Your task to perform on an android device: check data usage Image 0: 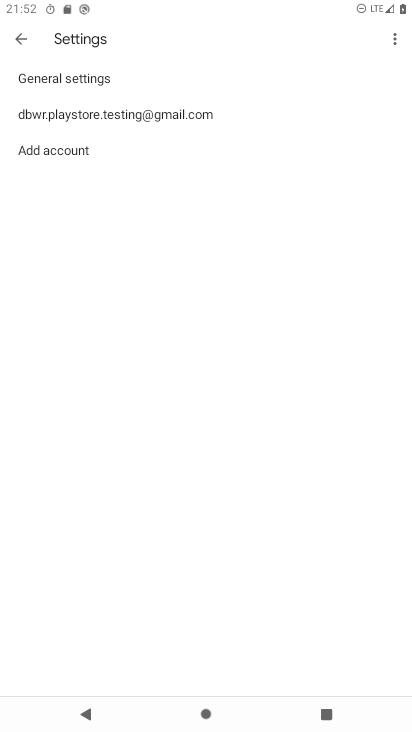
Step 0: press home button
Your task to perform on an android device: check data usage Image 1: 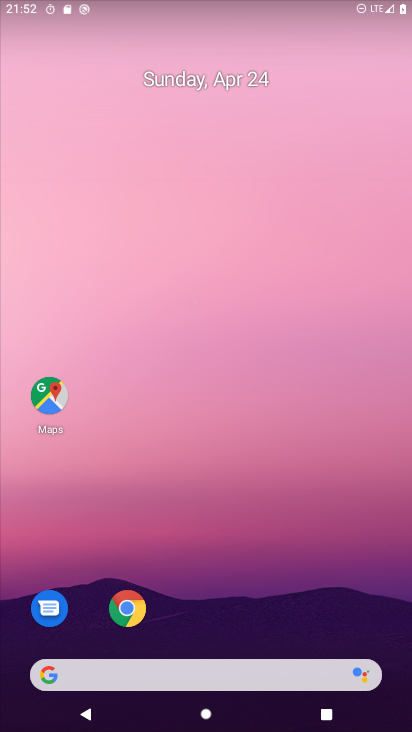
Step 1: drag from (303, 527) to (281, 55)
Your task to perform on an android device: check data usage Image 2: 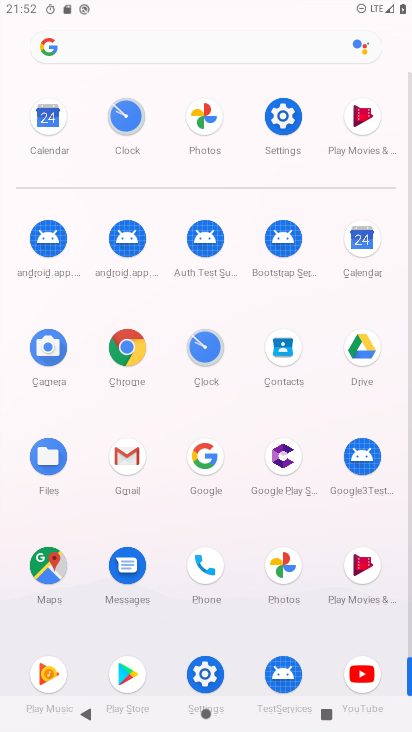
Step 2: click (278, 111)
Your task to perform on an android device: check data usage Image 3: 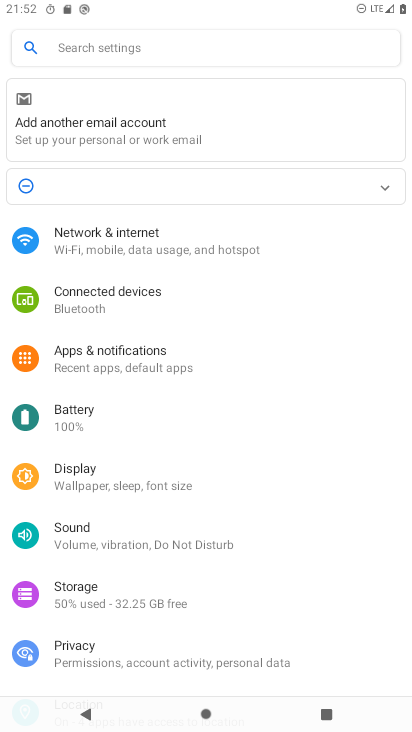
Step 3: click (238, 237)
Your task to perform on an android device: check data usage Image 4: 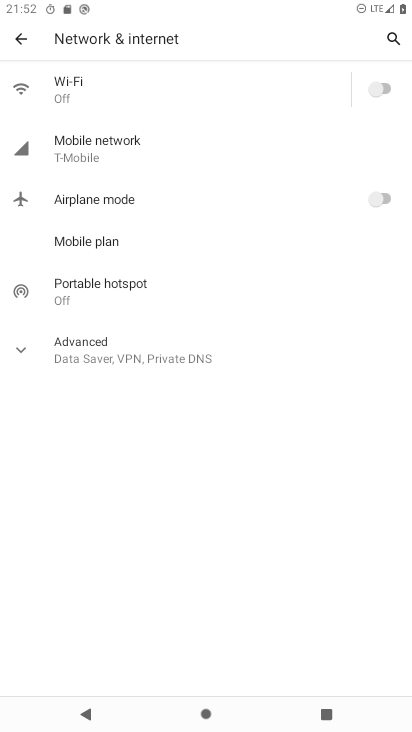
Step 4: click (223, 151)
Your task to perform on an android device: check data usage Image 5: 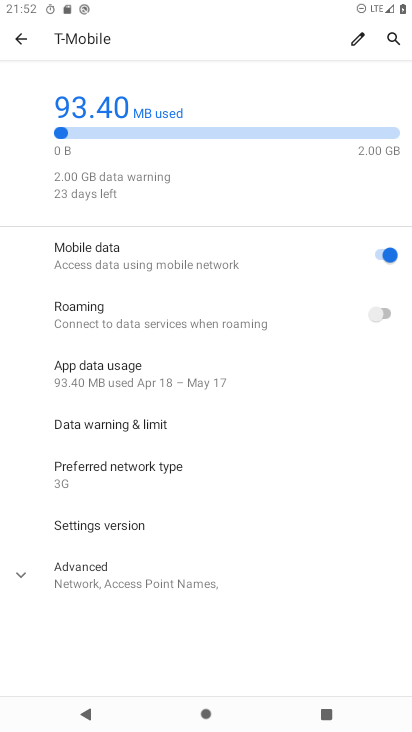
Step 5: task complete